Your task to perform on an android device: show emergency info Image 0: 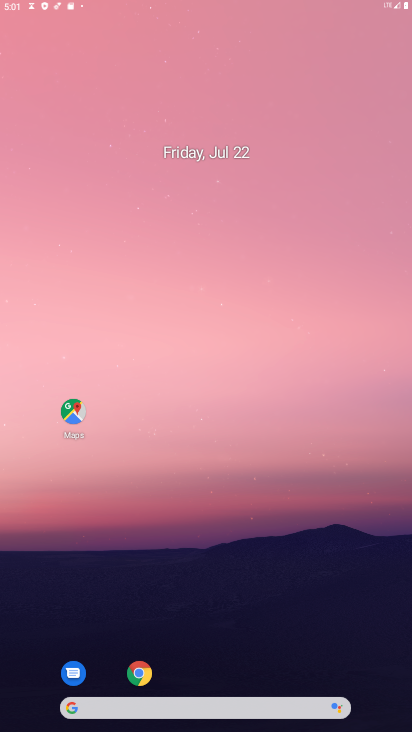
Step 0: press home button
Your task to perform on an android device: show emergency info Image 1: 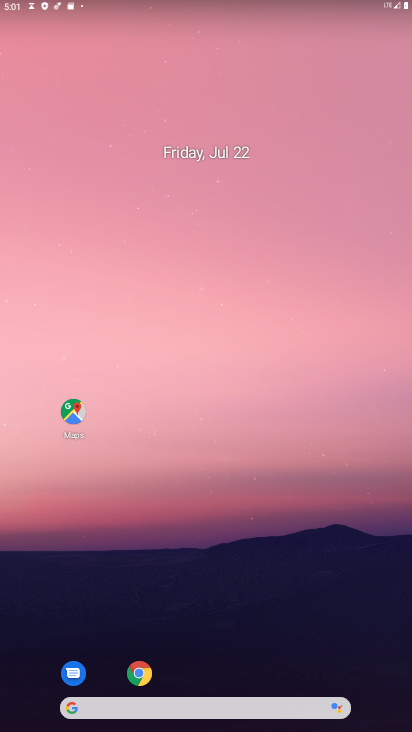
Step 1: drag from (233, 666) to (273, 107)
Your task to perform on an android device: show emergency info Image 2: 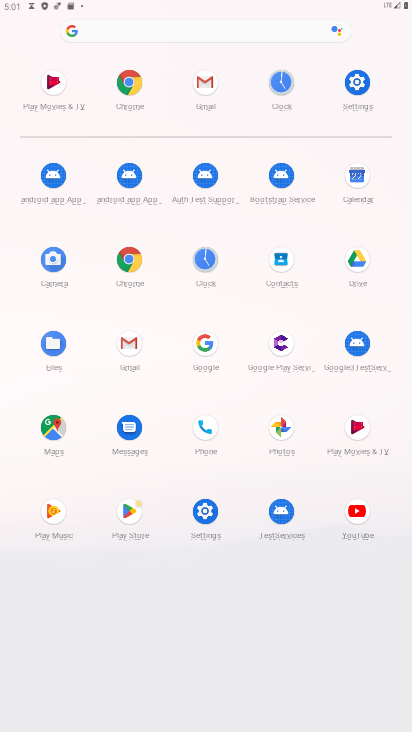
Step 2: click (360, 78)
Your task to perform on an android device: show emergency info Image 3: 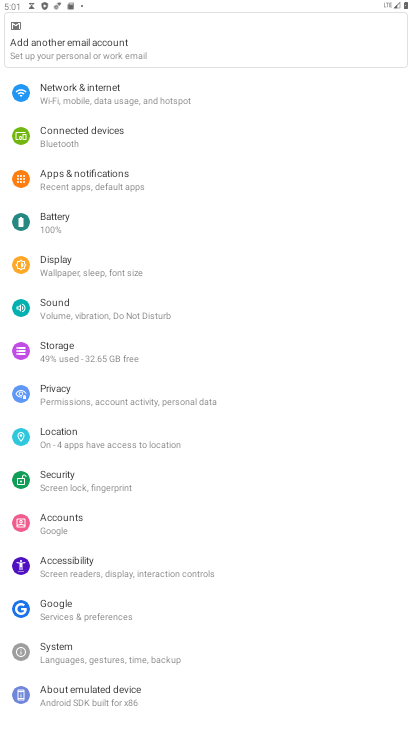
Step 3: click (78, 697)
Your task to perform on an android device: show emergency info Image 4: 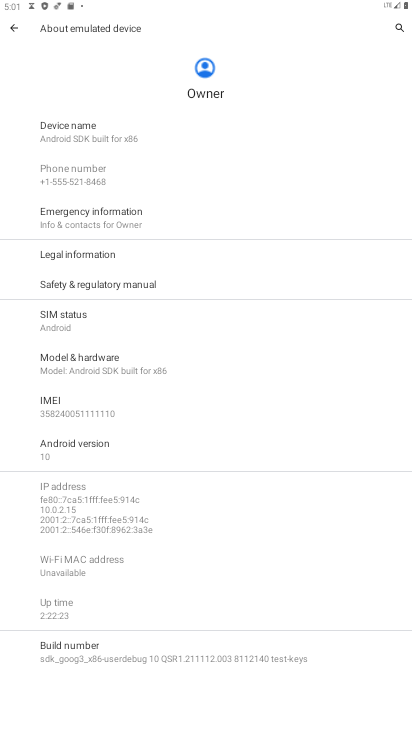
Step 4: click (87, 216)
Your task to perform on an android device: show emergency info Image 5: 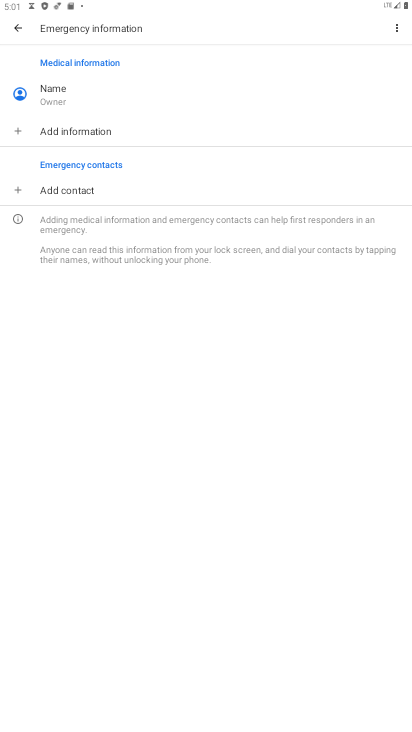
Step 5: task complete